Your task to perform on an android device: turn on data saver in the chrome app Image 0: 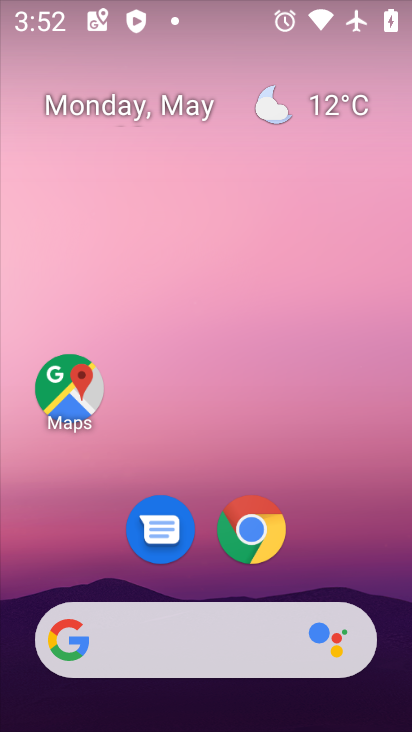
Step 0: click (246, 532)
Your task to perform on an android device: turn on data saver in the chrome app Image 1: 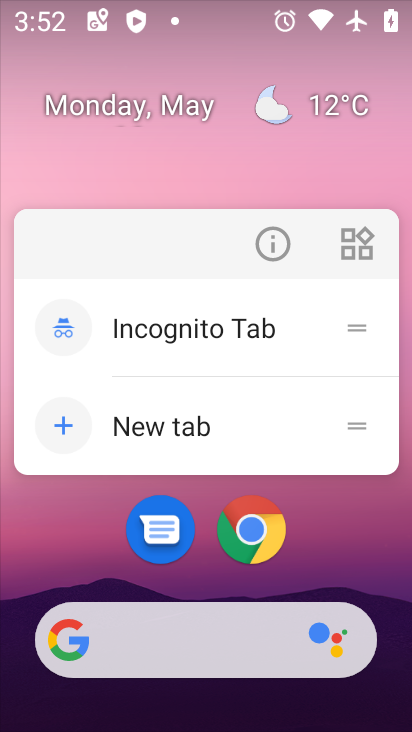
Step 1: click (246, 532)
Your task to perform on an android device: turn on data saver in the chrome app Image 2: 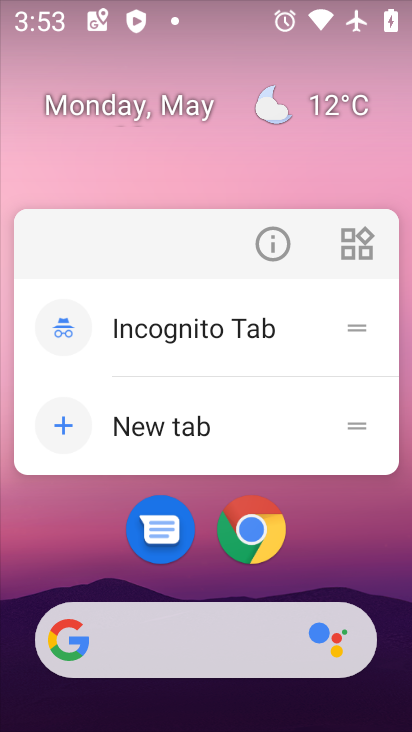
Step 2: click (246, 531)
Your task to perform on an android device: turn on data saver in the chrome app Image 3: 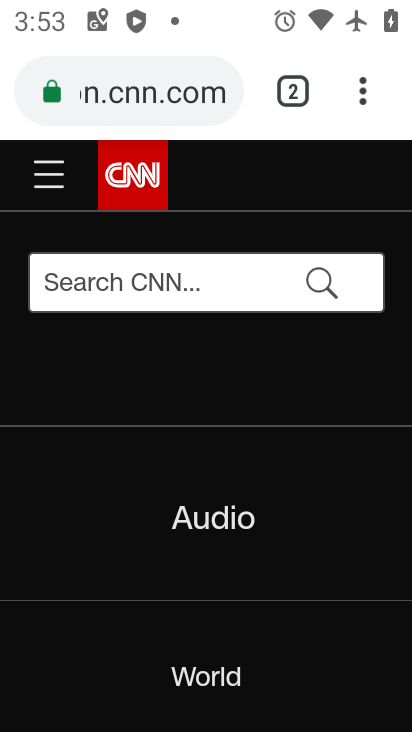
Step 3: click (361, 89)
Your task to perform on an android device: turn on data saver in the chrome app Image 4: 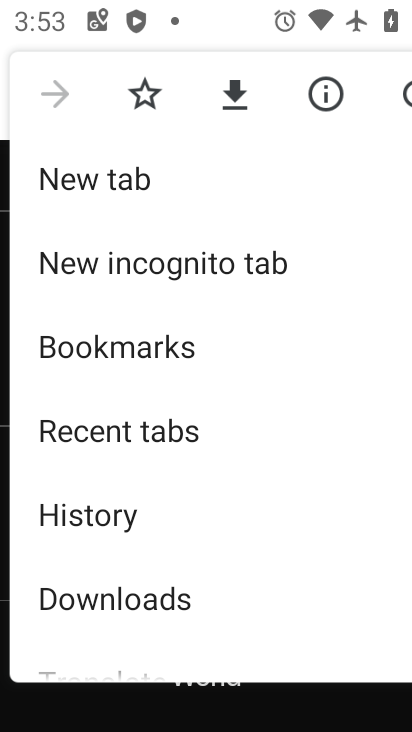
Step 4: drag from (187, 604) to (209, 292)
Your task to perform on an android device: turn on data saver in the chrome app Image 5: 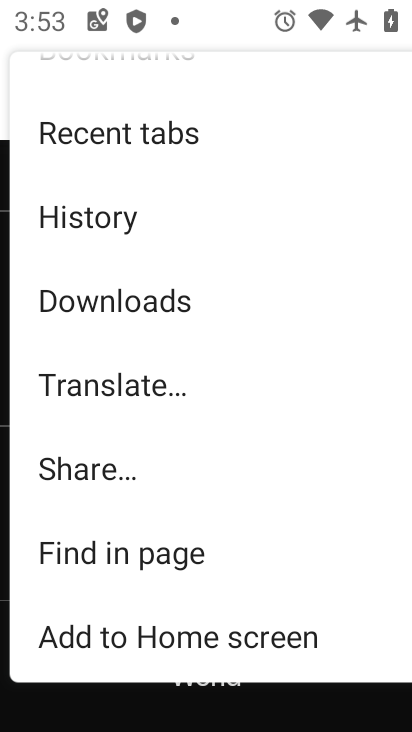
Step 5: drag from (199, 539) to (195, 368)
Your task to perform on an android device: turn on data saver in the chrome app Image 6: 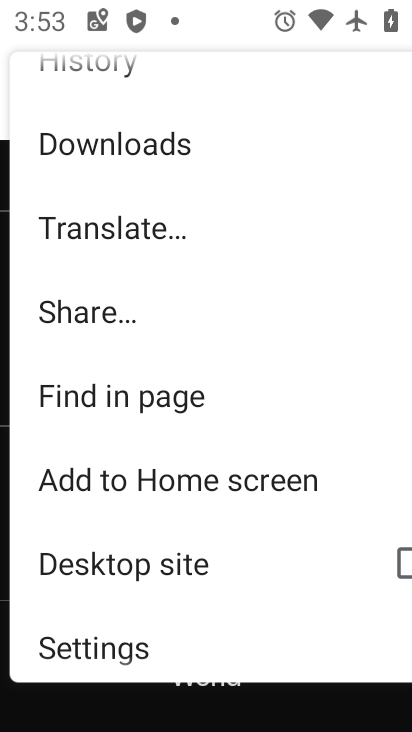
Step 6: drag from (198, 627) to (198, 389)
Your task to perform on an android device: turn on data saver in the chrome app Image 7: 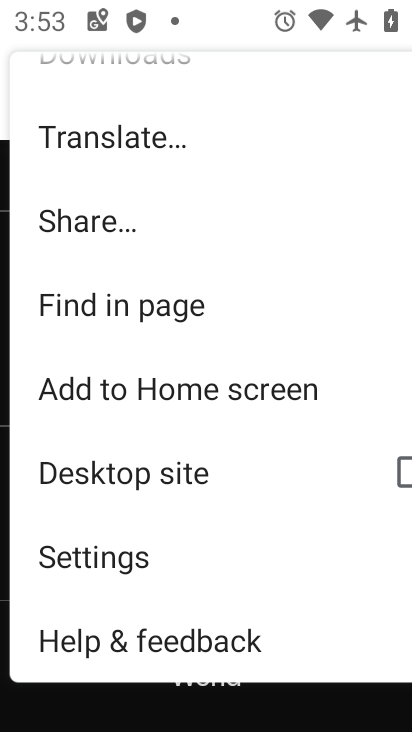
Step 7: drag from (156, 585) to (167, 381)
Your task to perform on an android device: turn on data saver in the chrome app Image 8: 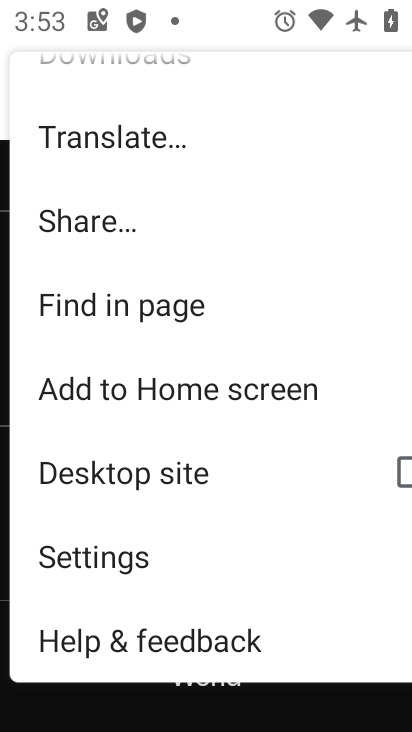
Step 8: click (185, 563)
Your task to perform on an android device: turn on data saver in the chrome app Image 9: 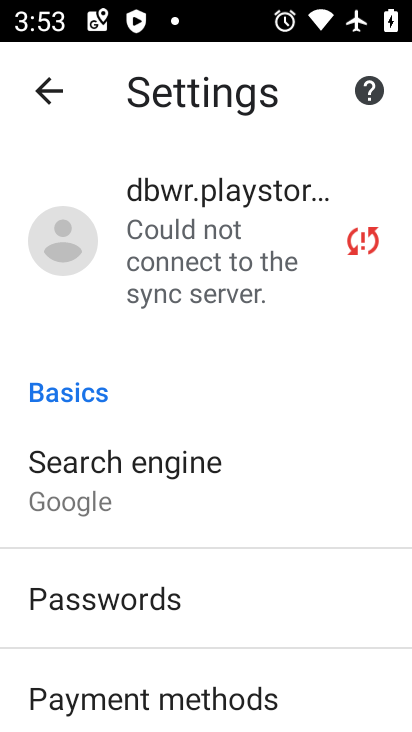
Step 9: drag from (178, 657) to (153, 423)
Your task to perform on an android device: turn on data saver in the chrome app Image 10: 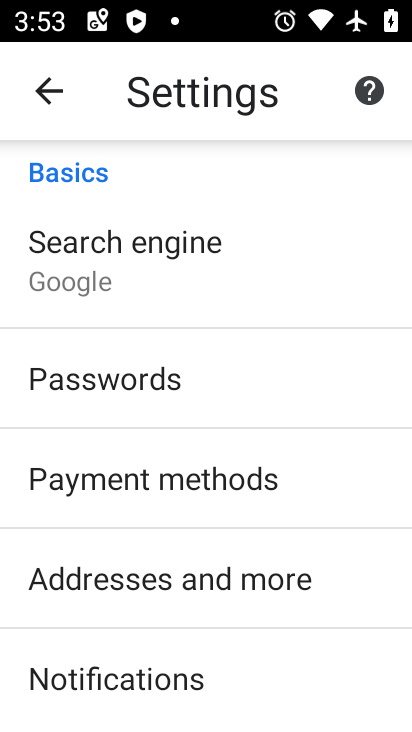
Step 10: drag from (212, 681) to (152, 492)
Your task to perform on an android device: turn on data saver in the chrome app Image 11: 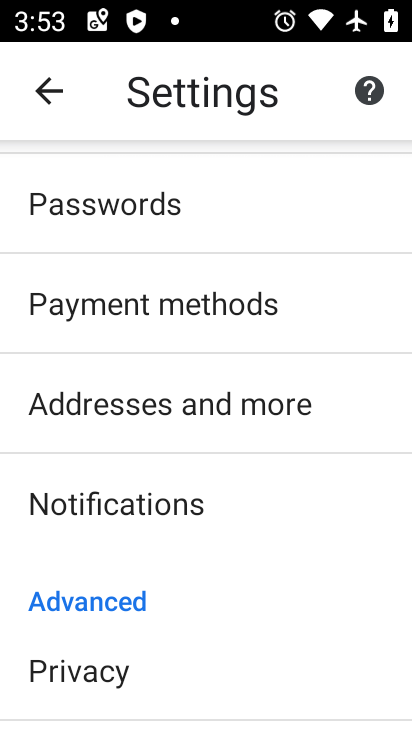
Step 11: drag from (206, 666) to (190, 428)
Your task to perform on an android device: turn on data saver in the chrome app Image 12: 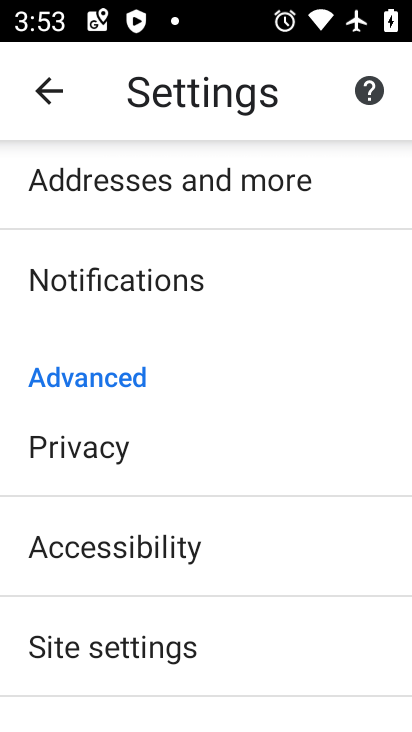
Step 12: drag from (184, 685) to (110, 391)
Your task to perform on an android device: turn on data saver in the chrome app Image 13: 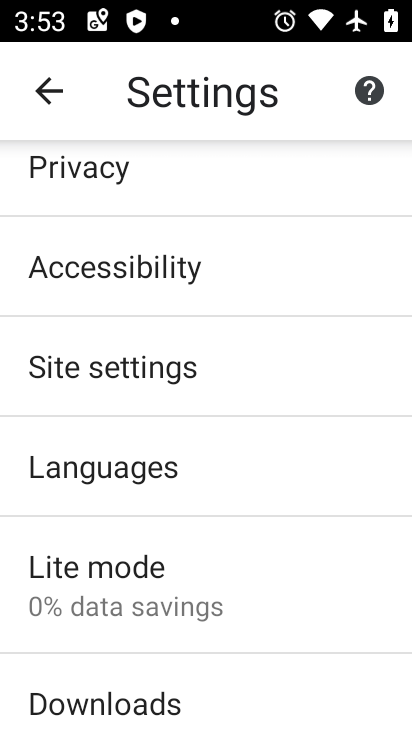
Step 13: click (131, 595)
Your task to perform on an android device: turn on data saver in the chrome app Image 14: 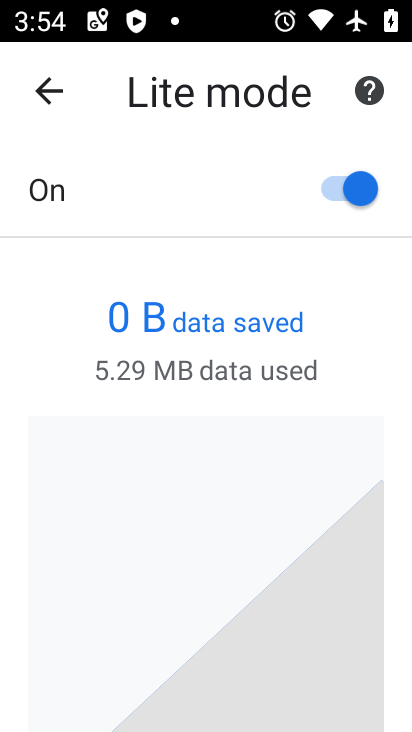
Step 14: task complete